Your task to perform on an android device: Open eBay Image 0: 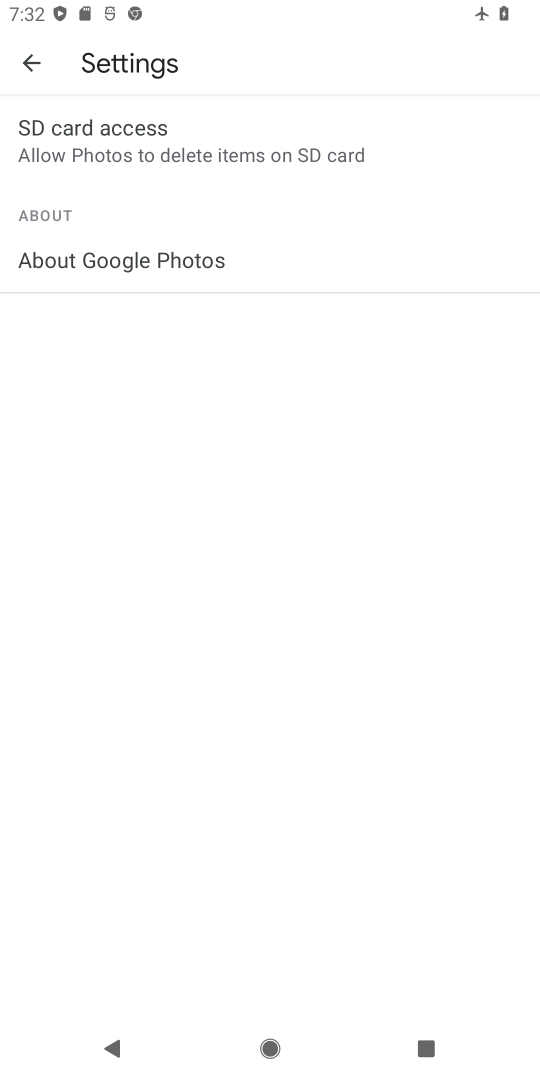
Step 0: press home button
Your task to perform on an android device: Open eBay Image 1: 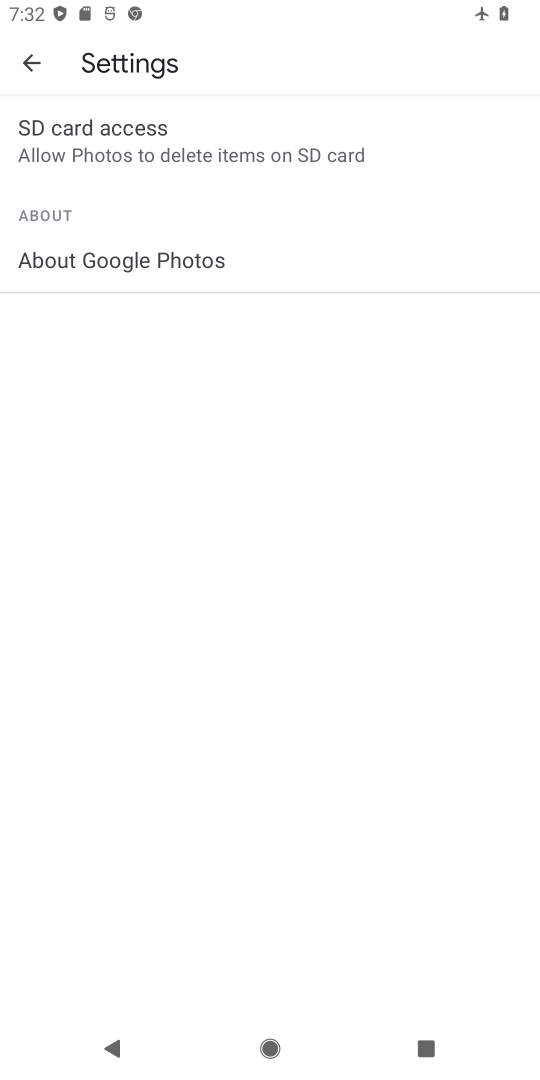
Step 1: press home button
Your task to perform on an android device: Open eBay Image 2: 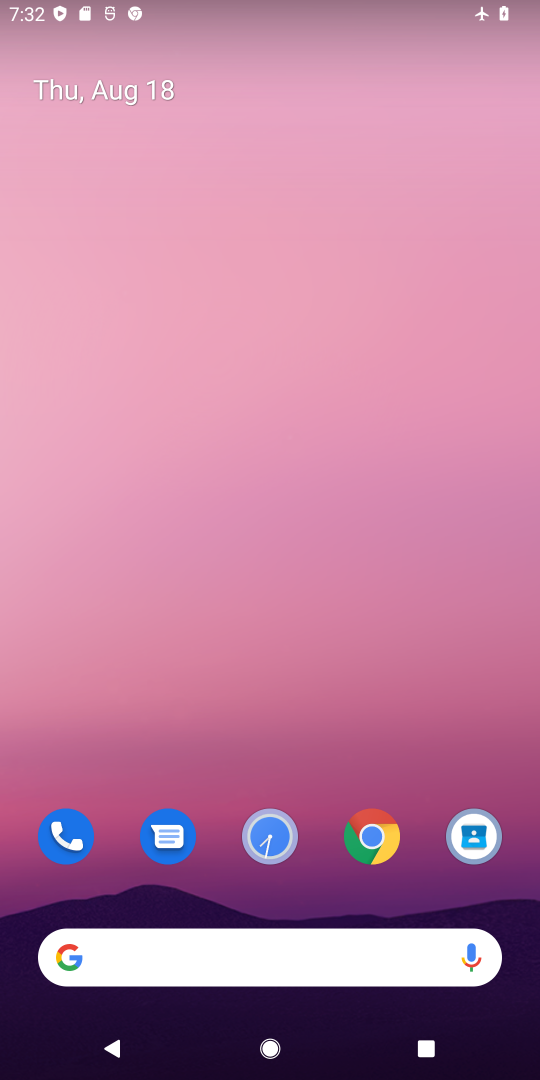
Step 2: drag from (326, 777) to (428, 11)
Your task to perform on an android device: Open eBay Image 3: 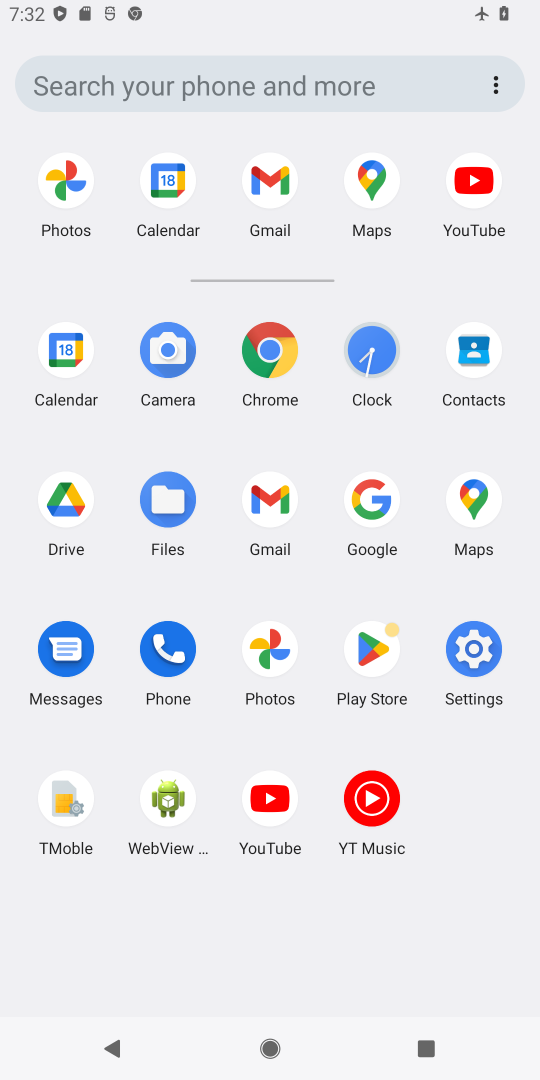
Step 3: click (269, 338)
Your task to perform on an android device: Open eBay Image 4: 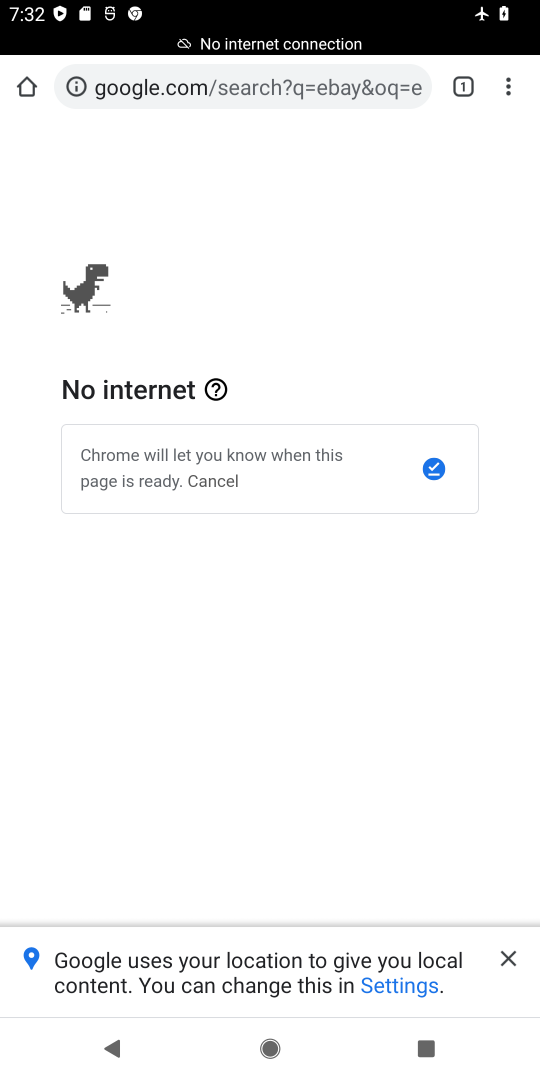
Step 4: click (277, 74)
Your task to perform on an android device: Open eBay Image 5: 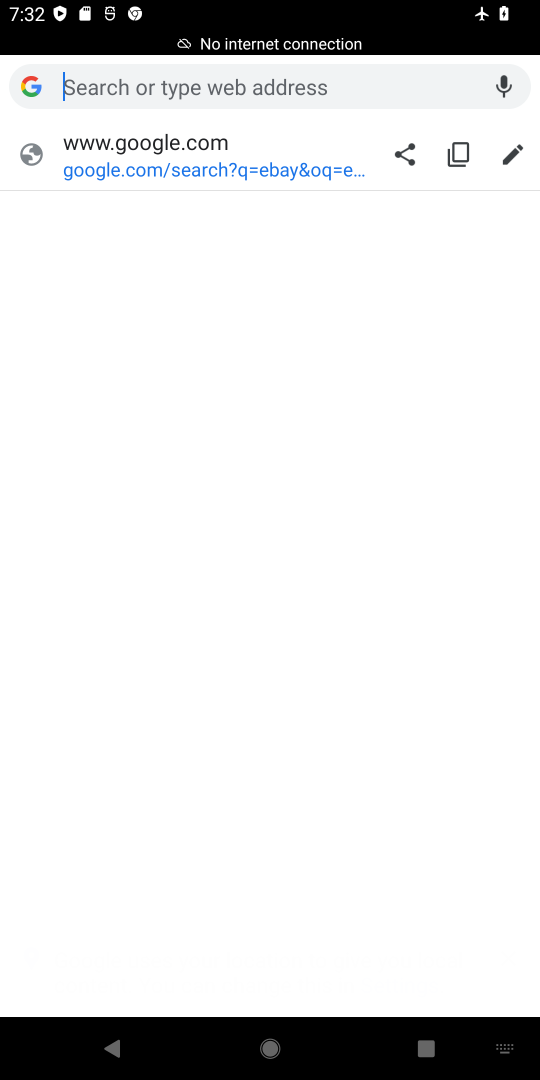
Step 5: type "ebay"
Your task to perform on an android device: Open eBay Image 6: 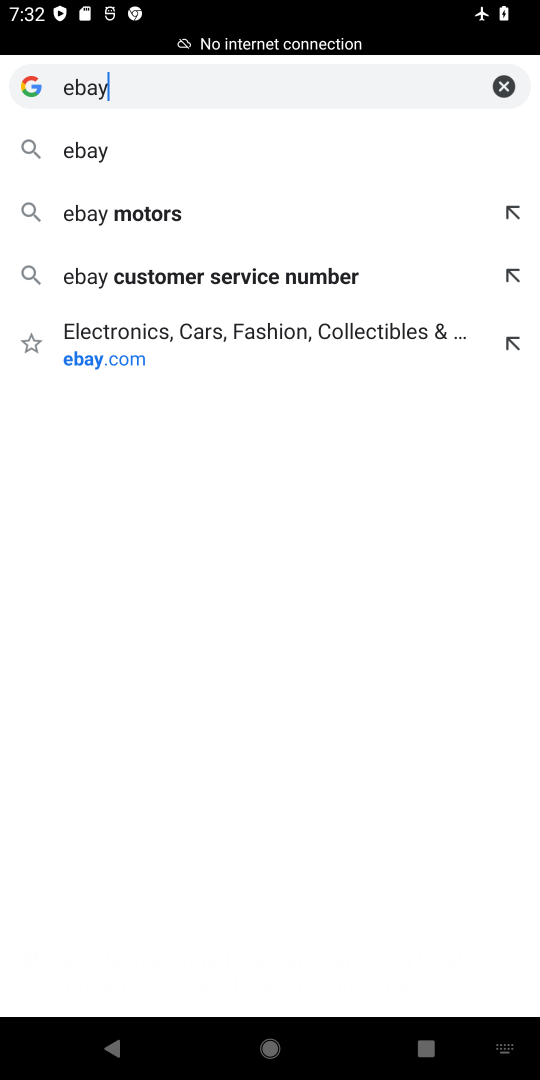
Step 6: click (123, 359)
Your task to perform on an android device: Open eBay Image 7: 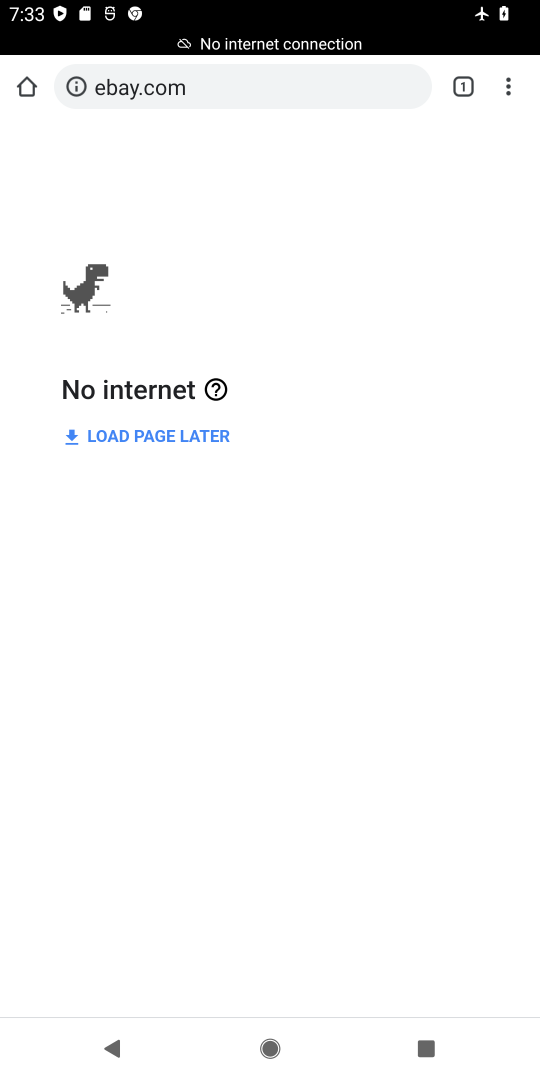
Step 7: task complete